Your task to perform on an android device: Open ESPN.com Image 0: 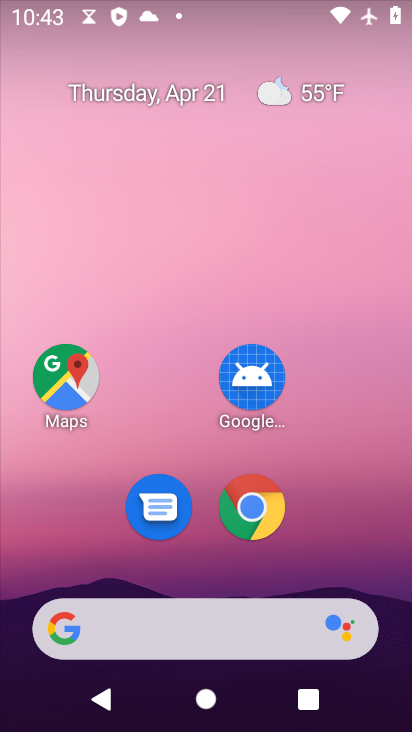
Step 0: drag from (322, 387) to (332, 172)
Your task to perform on an android device: Open ESPN.com Image 1: 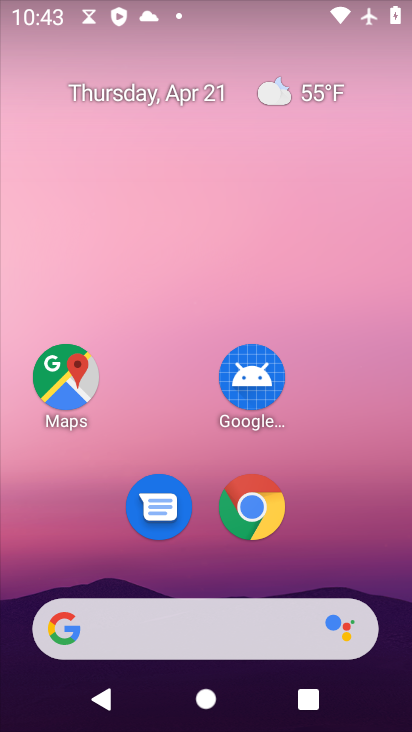
Step 1: drag from (348, 570) to (360, 266)
Your task to perform on an android device: Open ESPN.com Image 2: 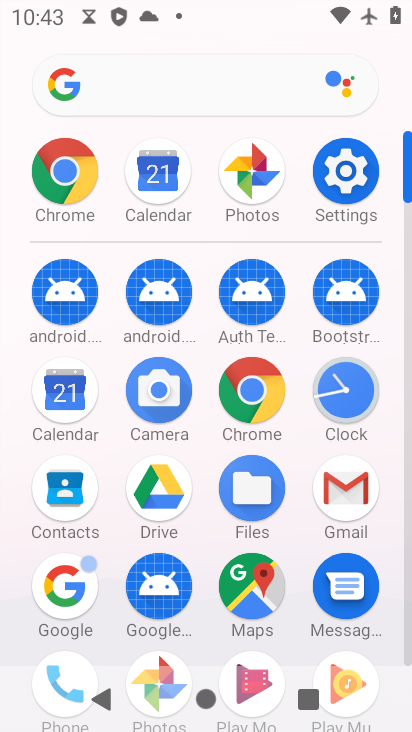
Step 2: click (71, 162)
Your task to perform on an android device: Open ESPN.com Image 3: 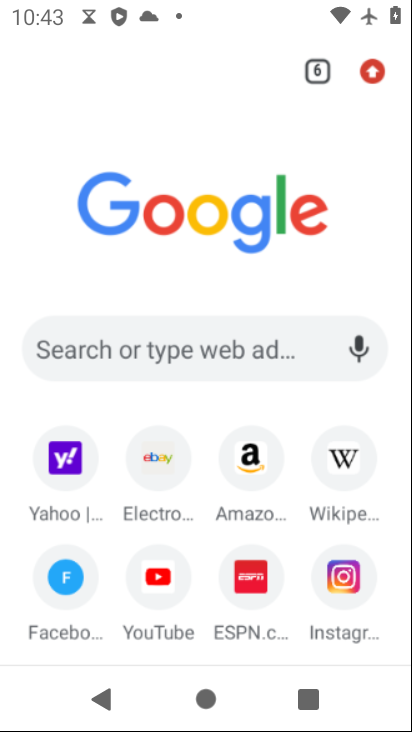
Step 3: click (71, 162)
Your task to perform on an android device: Open ESPN.com Image 4: 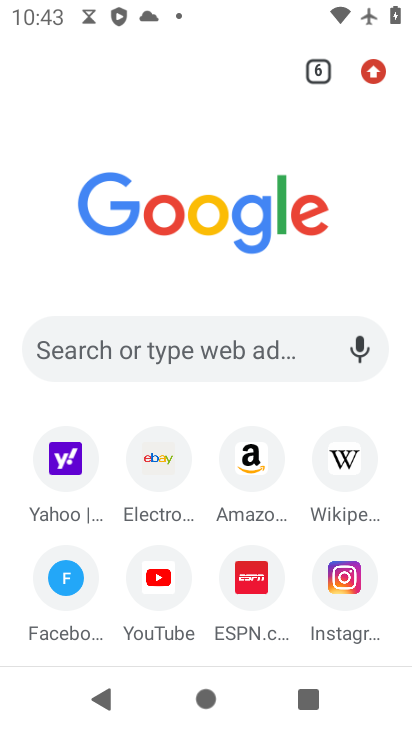
Step 4: click (249, 578)
Your task to perform on an android device: Open ESPN.com Image 5: 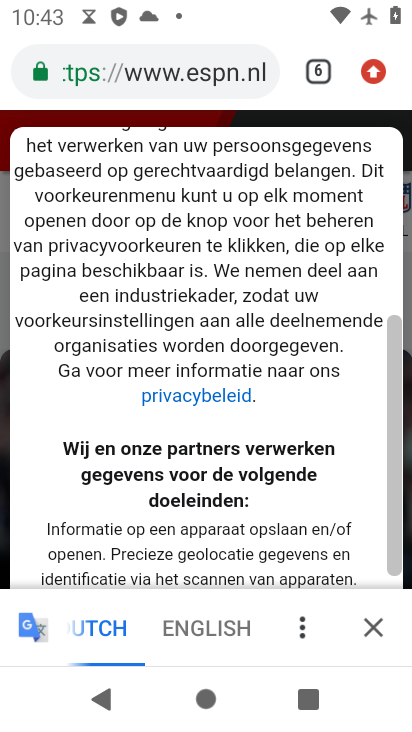
Step 5: task complete